Your task to perform on an android device: Open settings Image 0: 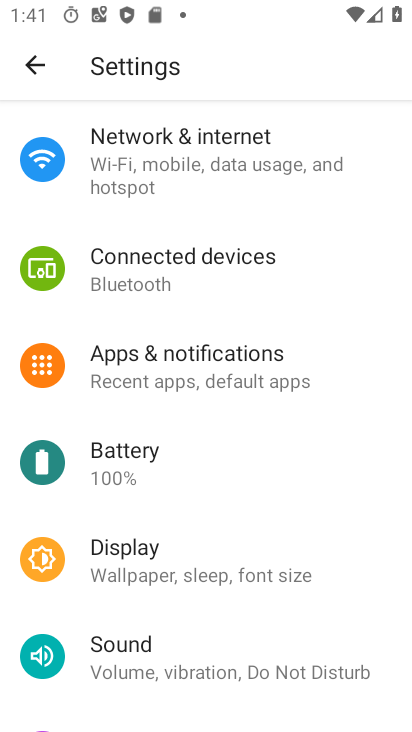
Step 0: task complete